Your task to perform on an android device: Go to sound settings Image 0: 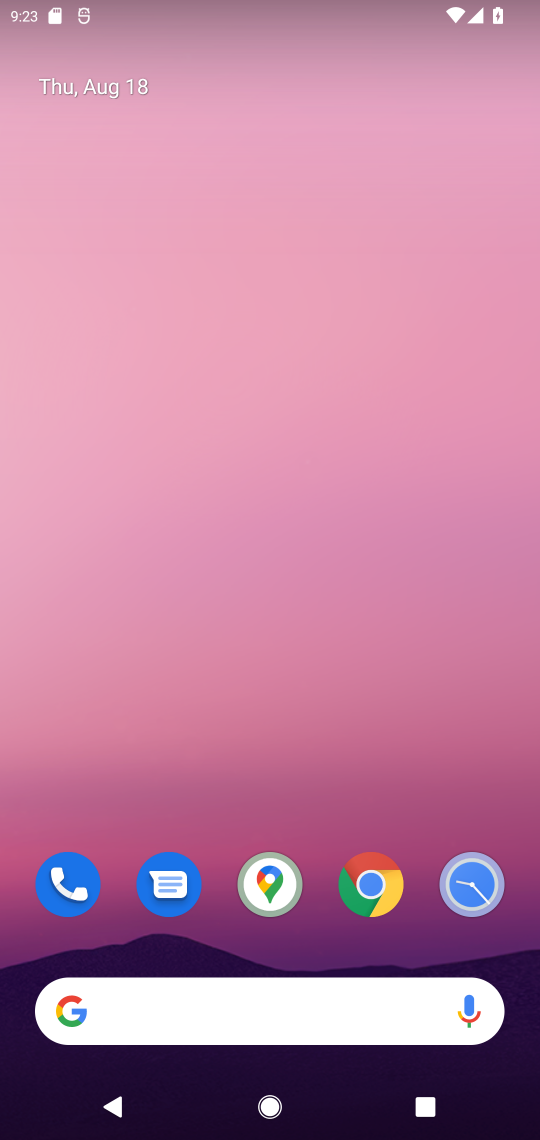
Step 0: drag from (250, 921) to (286, 357)
Your task to perform on an android device: Go to sound settings Image 1: 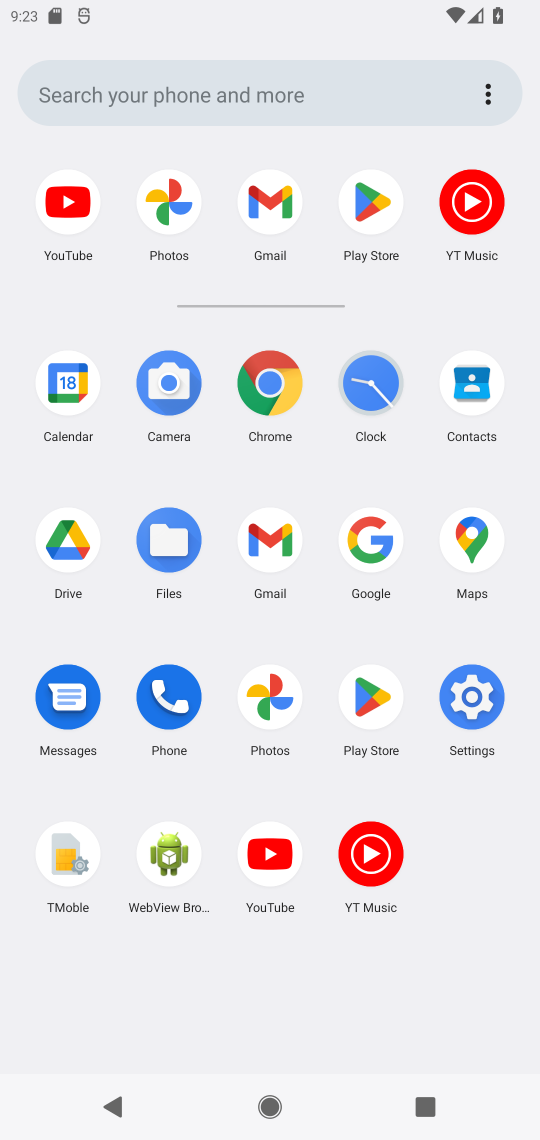
Step 1: click (482, 675)
Your task to perform on an android device: Go to sound settings Image 2: 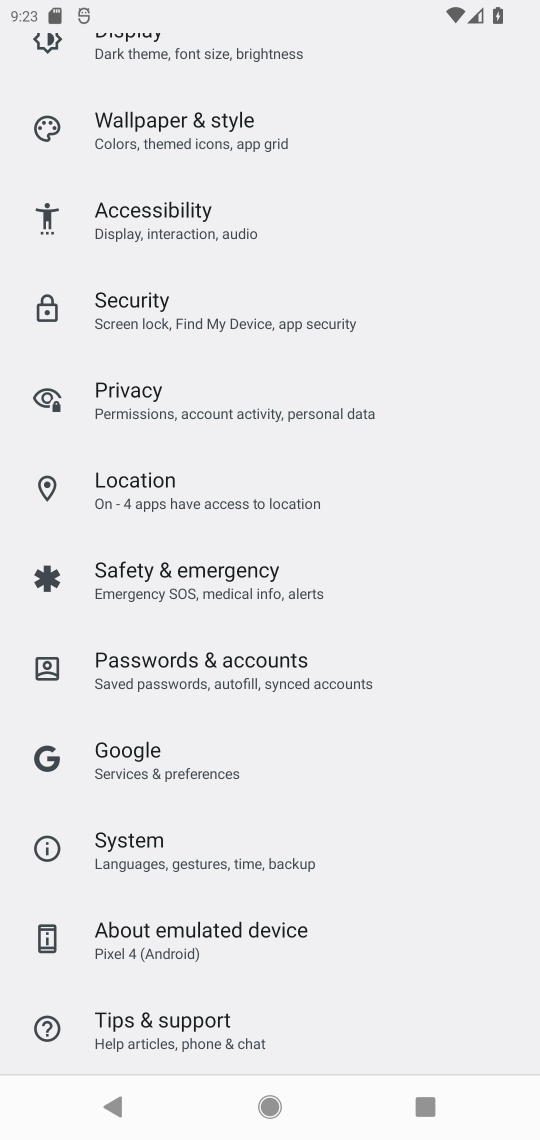
Step 2: drag from (263, 187) to (293, 996)
Your task to perform on an android device: Go to sound settings Image 3: 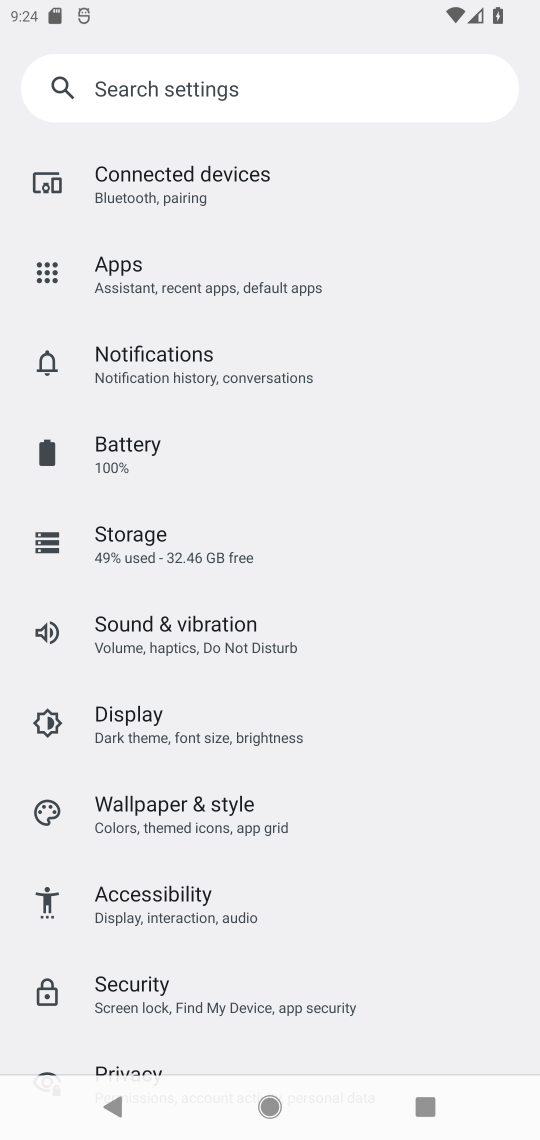
Step 3: drag from (214, 201) to (270, 971)
Your task to perform on an android device: Go to sound settings Image 4: 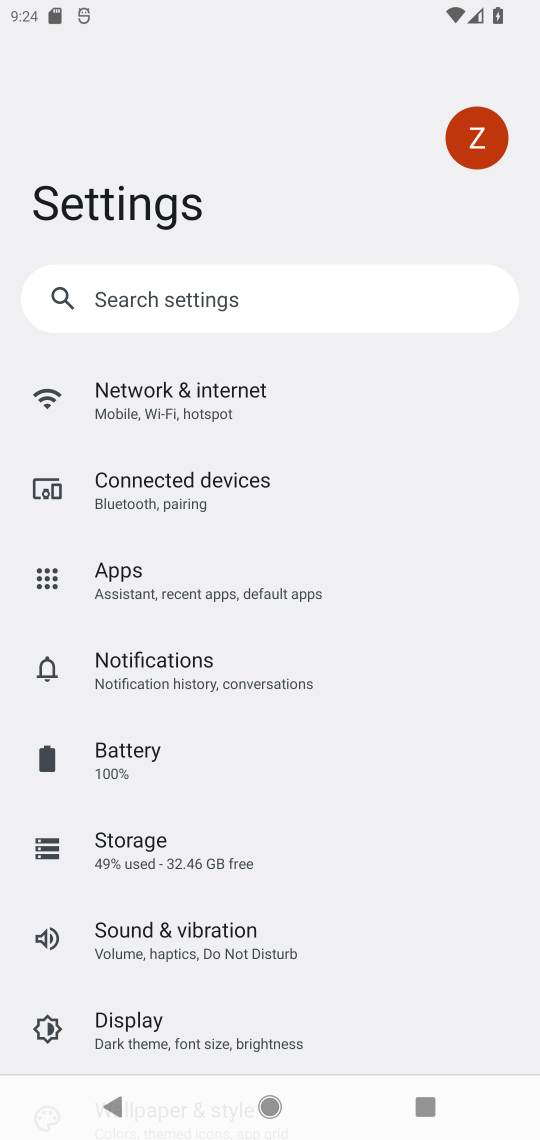
Step 4: drag from (282, 979) to (293, 365)
Your task to perform on an android device: Go to sound settings Image 5: 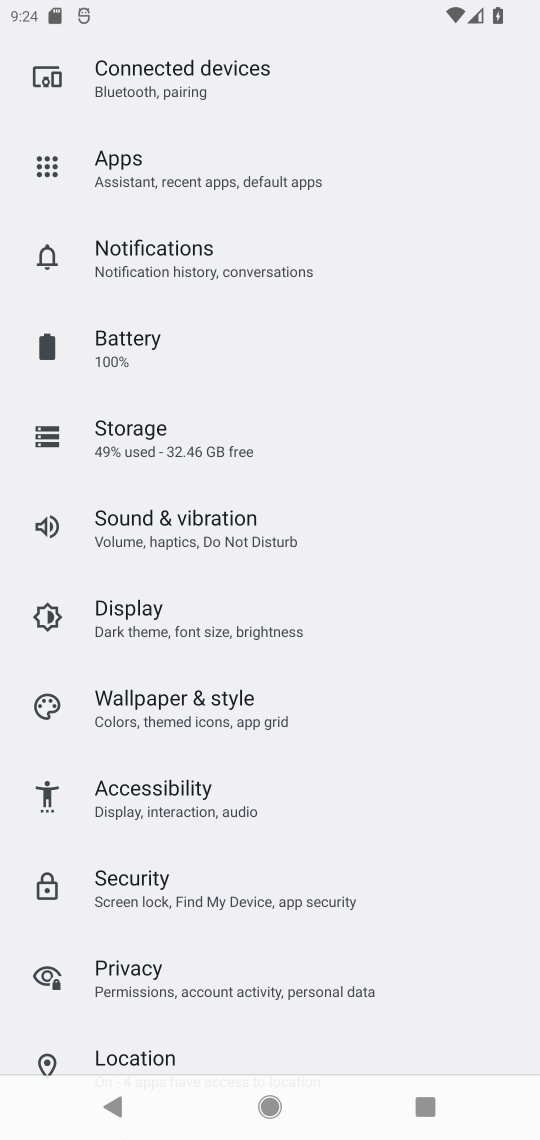
Step 5: click (324, 518)
Your task to perform on an android device: Go to sound settings Image 6: 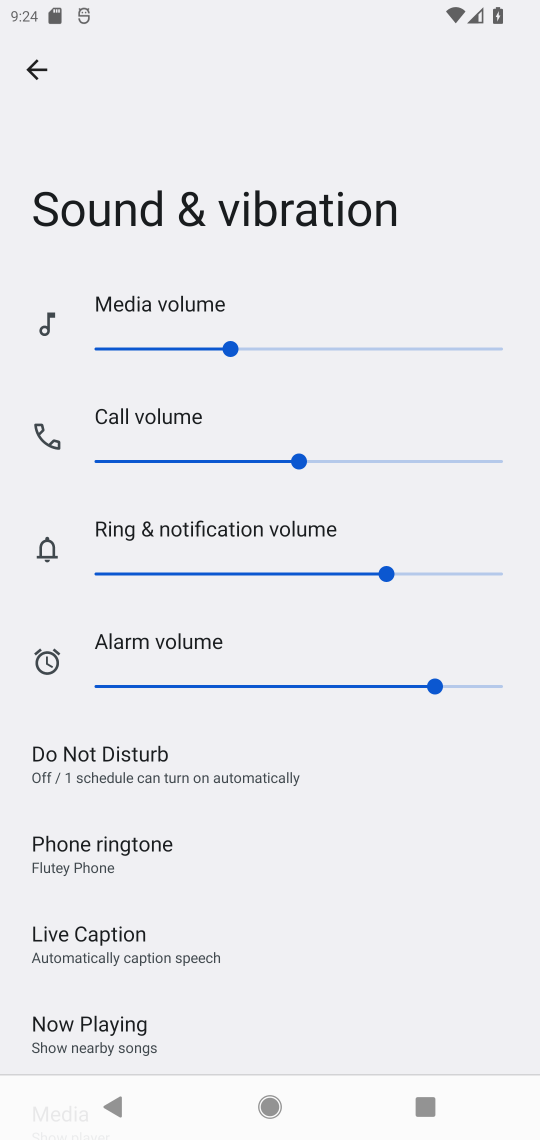
Step 6: task complete